Your task to perform on an android device: change the clock display to digital Image 0: 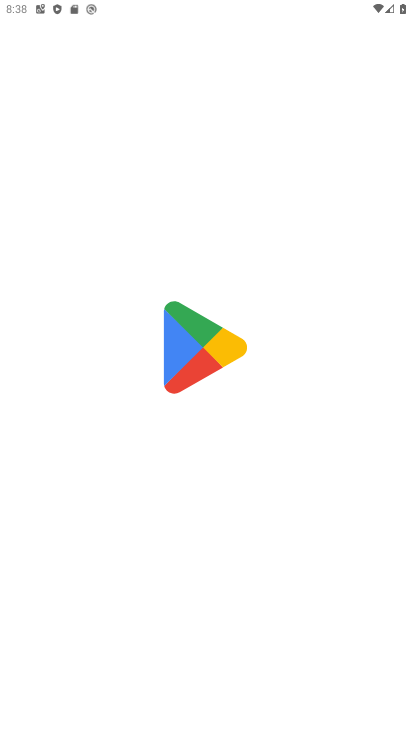
Step 0: press home button
Your task to perform on an android device: change the clock display to digital Image 1: 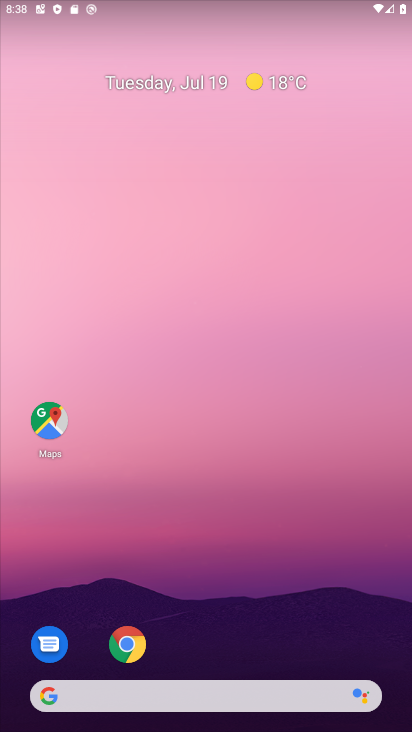
Step 1: drag from (228, 728) to (247, 253)
Your task to perform on an android device: change the clock display to digital Image 2: 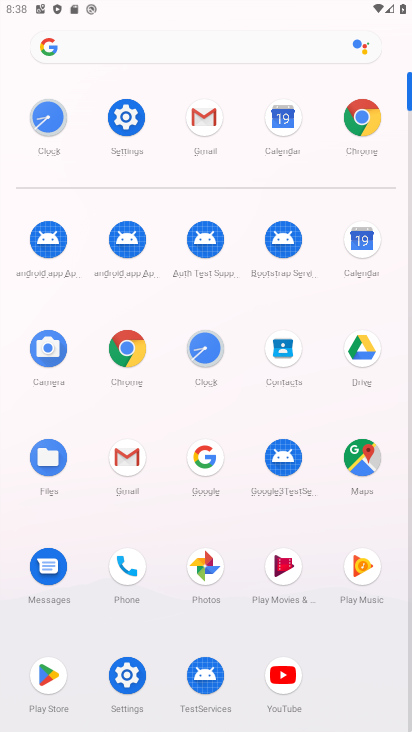
Step 2: click (205, 346)
Your task to perform on an android device: change the clock display to digital Image 3: 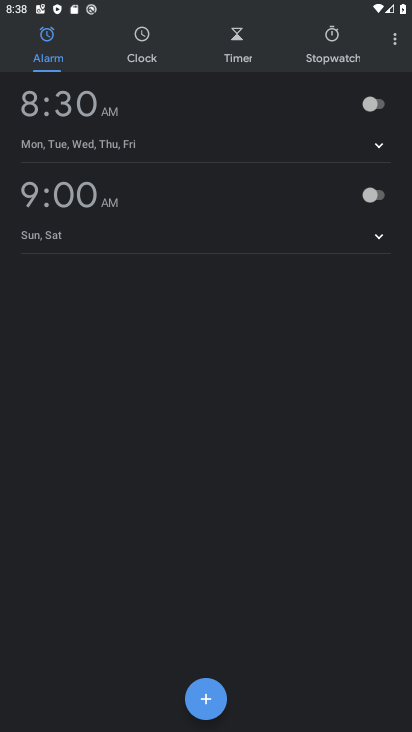
Step 3: click (393, 42)
Your task to perform on an android device: change the clock display to digital Image 4: 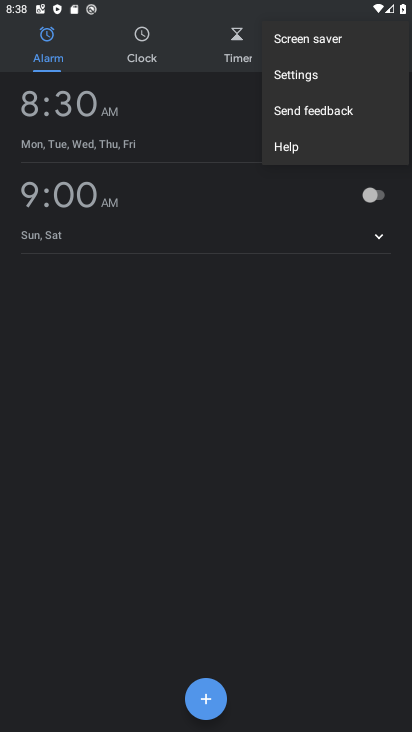
Step 4: click (317, 71)
Your task to perform on an android device: change the clock display to digital Image 5: 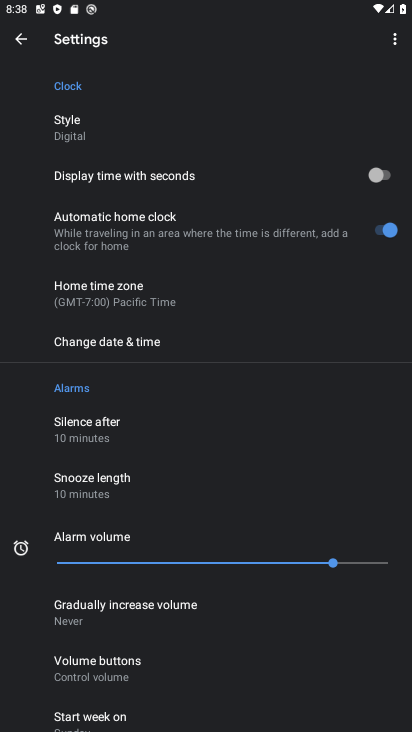
Step 5: task complete